Your task to perform on an android device: open app "Messenger Lite" Image 0: 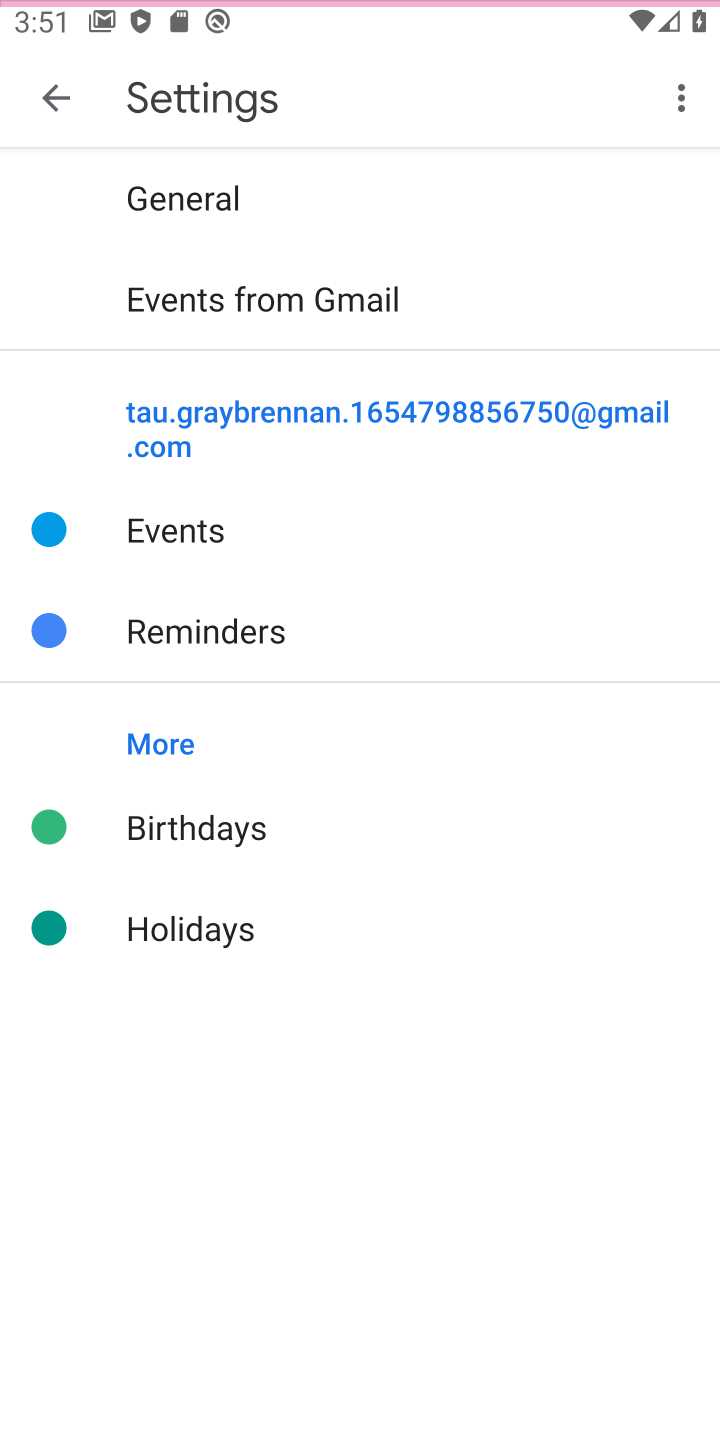
Step 0: press home button
Your task to perform on an android device: open app "Messenger Lite" Image 1: 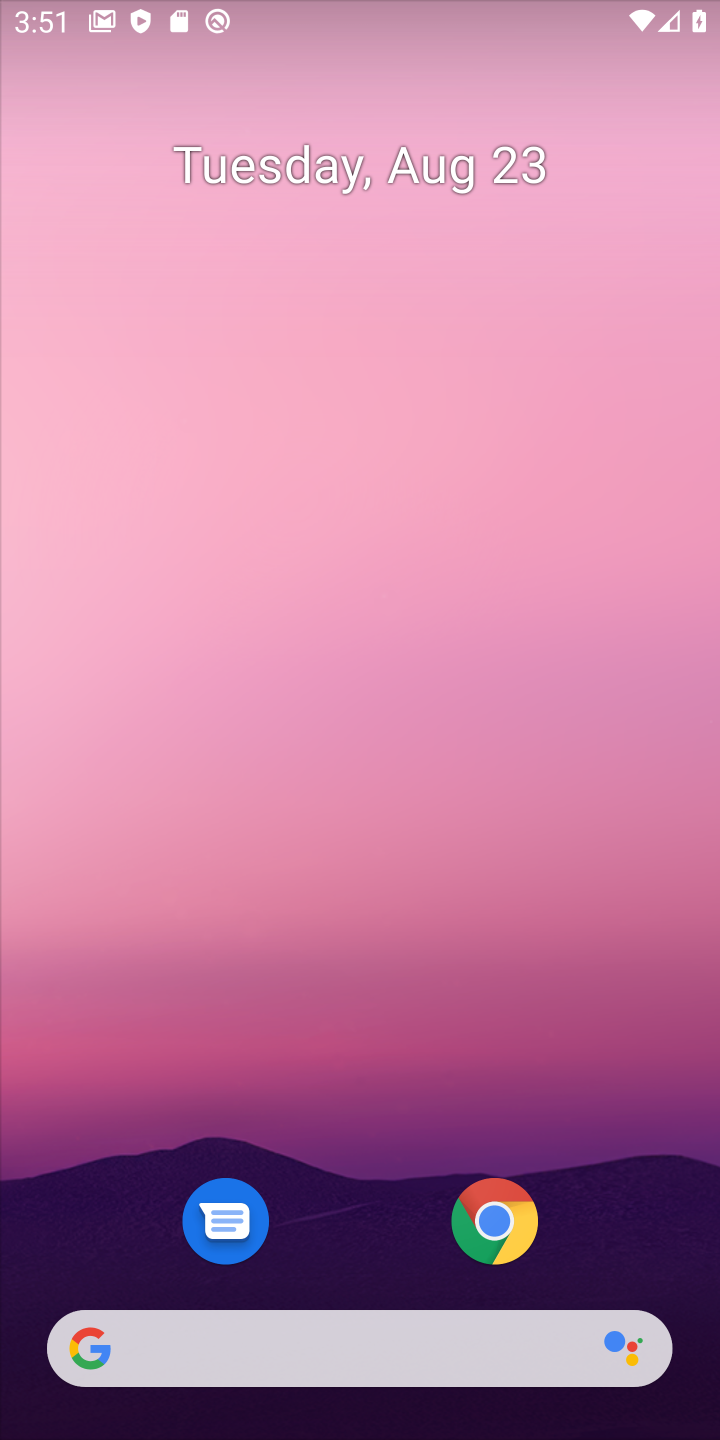
Step 1: press home button
Your task to perform on an android device: open app "Messenger Lite" Image 2: 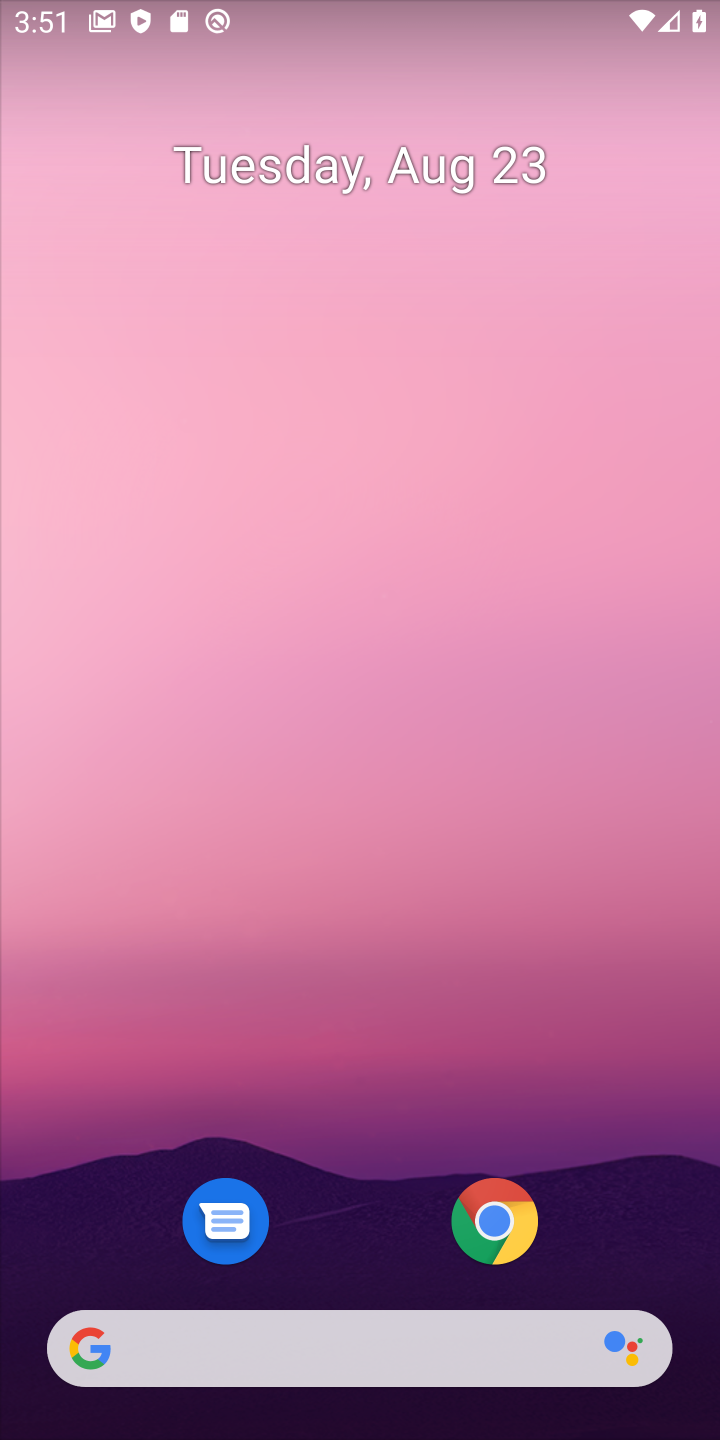
Step 2: drag from (334, 1289) to (343, 88)
Your task to perform on an android device: open app "Messenger Lite" Image 3: 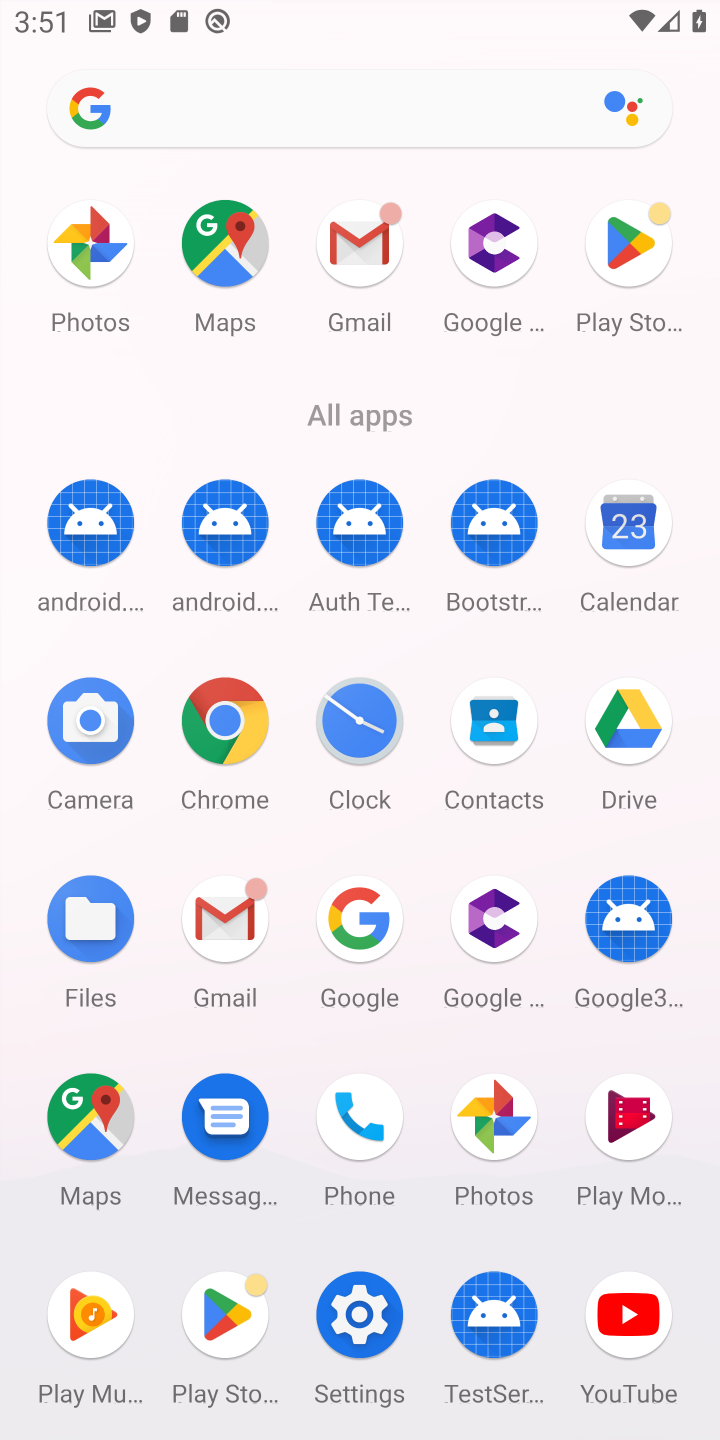
Step 3: click (620, 245)
Your task to perform on an android device: open app "Messenger Lite" Image 4: 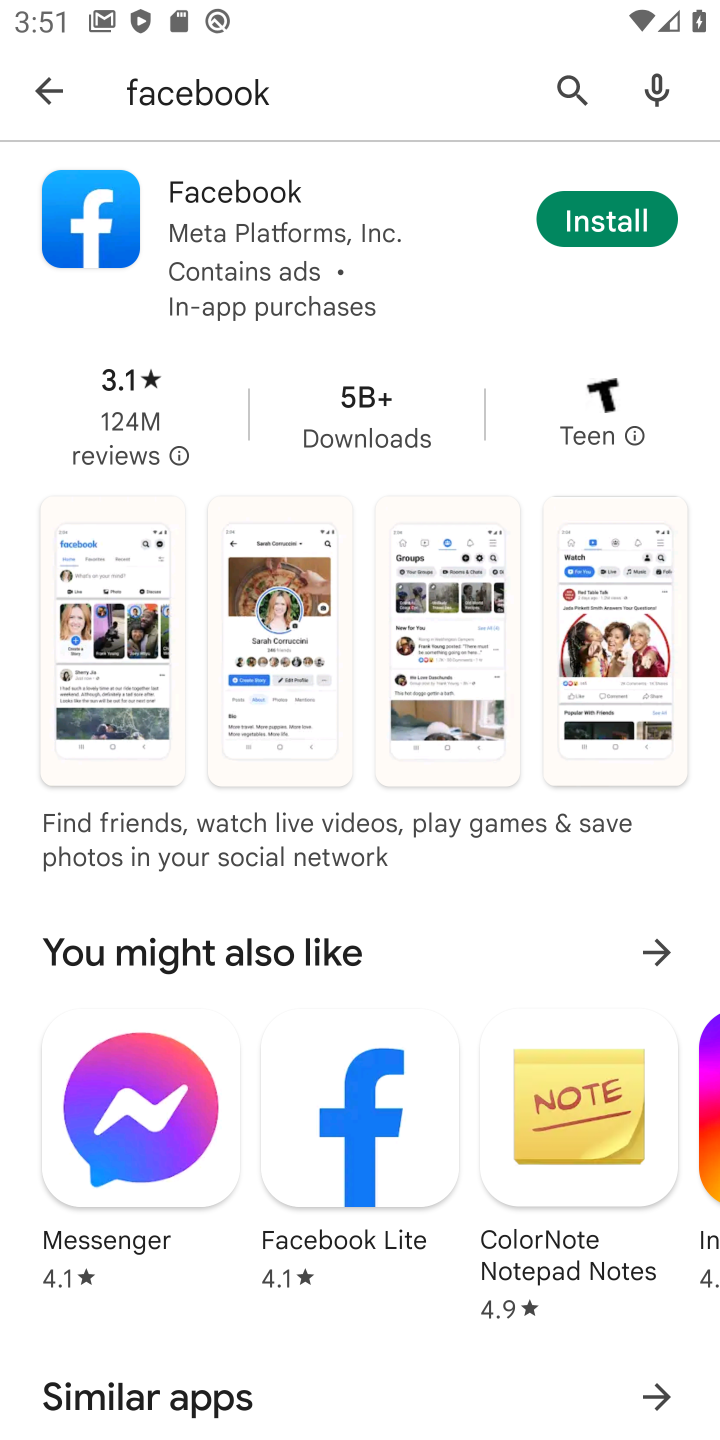
Step 4: click (42, 94)
Your task to perform on an android device: open app "Messenger Lite" Image 5: 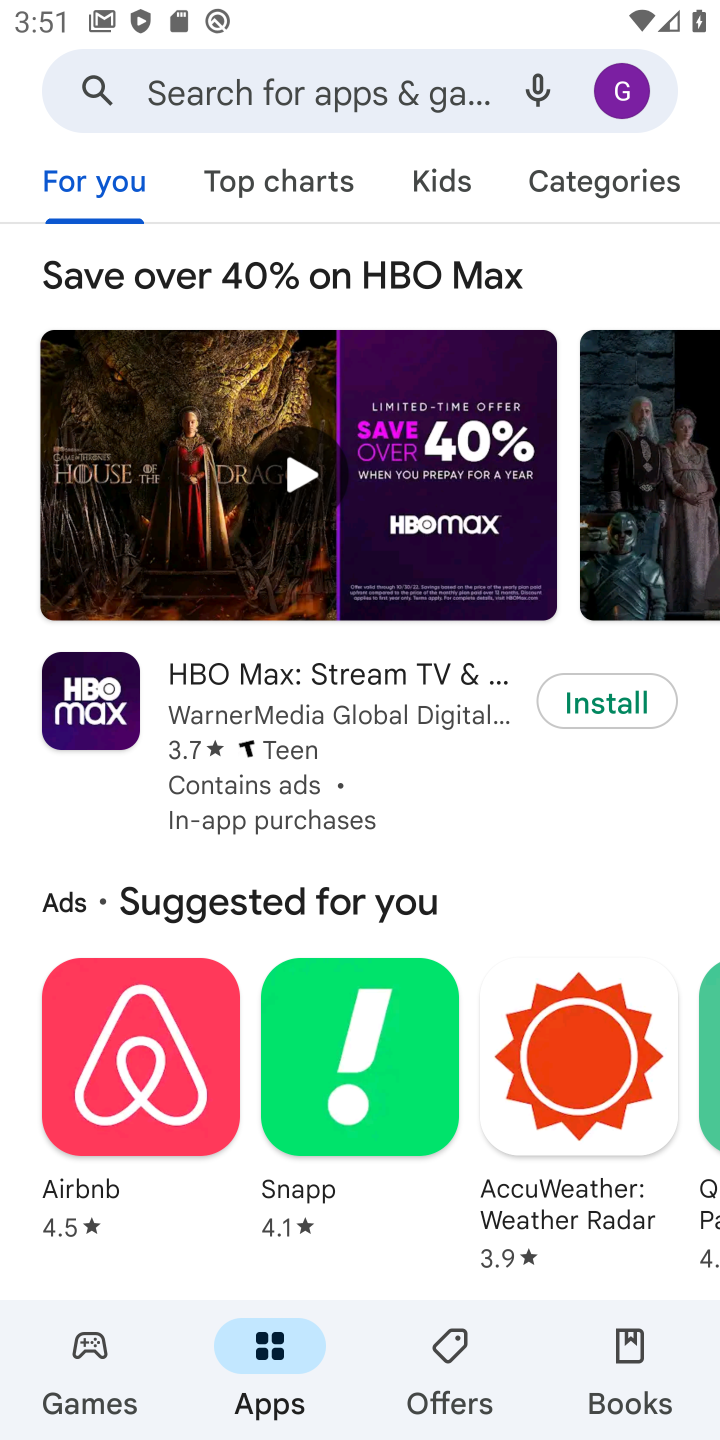
Step 5: click (344, 91)
Your task to perform on an android device: open app "Messenger Lite" Image 6: 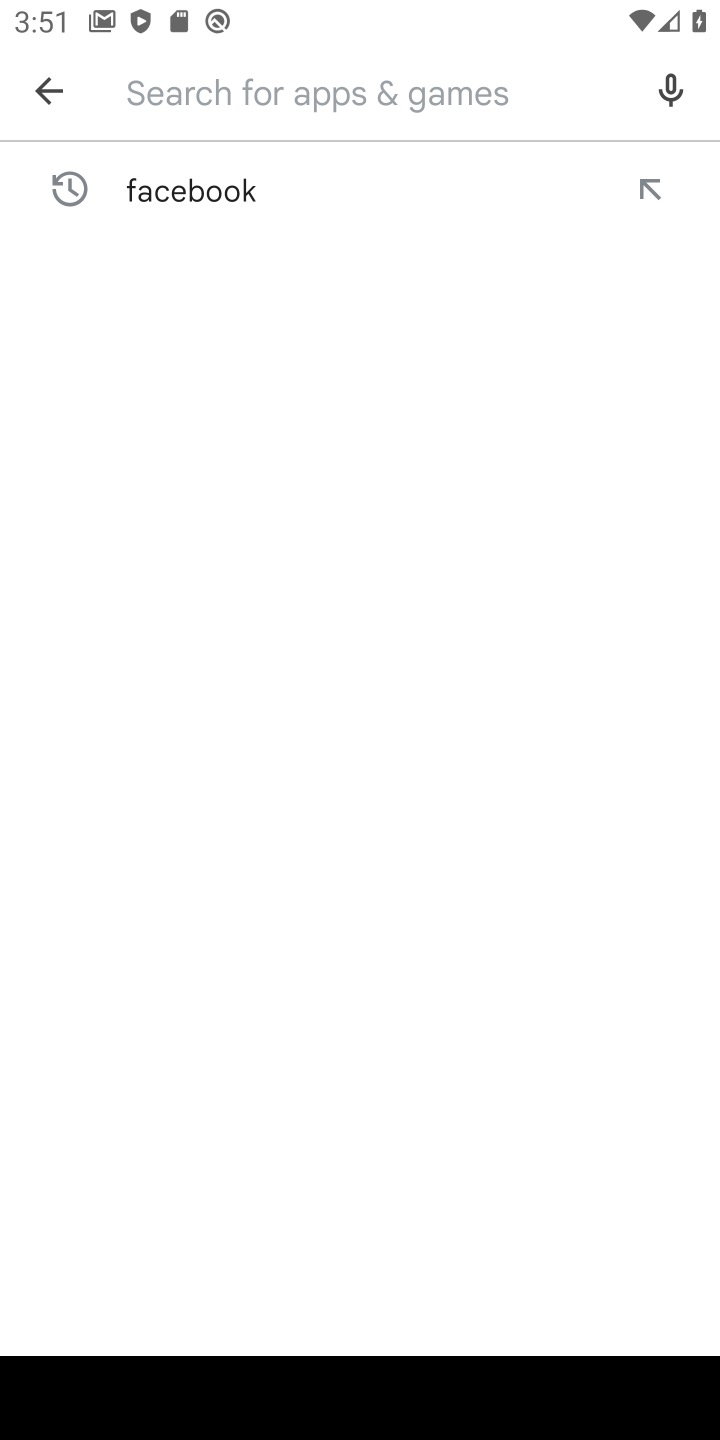
Step 6: type "Messenger Lite"
Your task to perform on an android device: open app "Messenger Lite" Image 7: 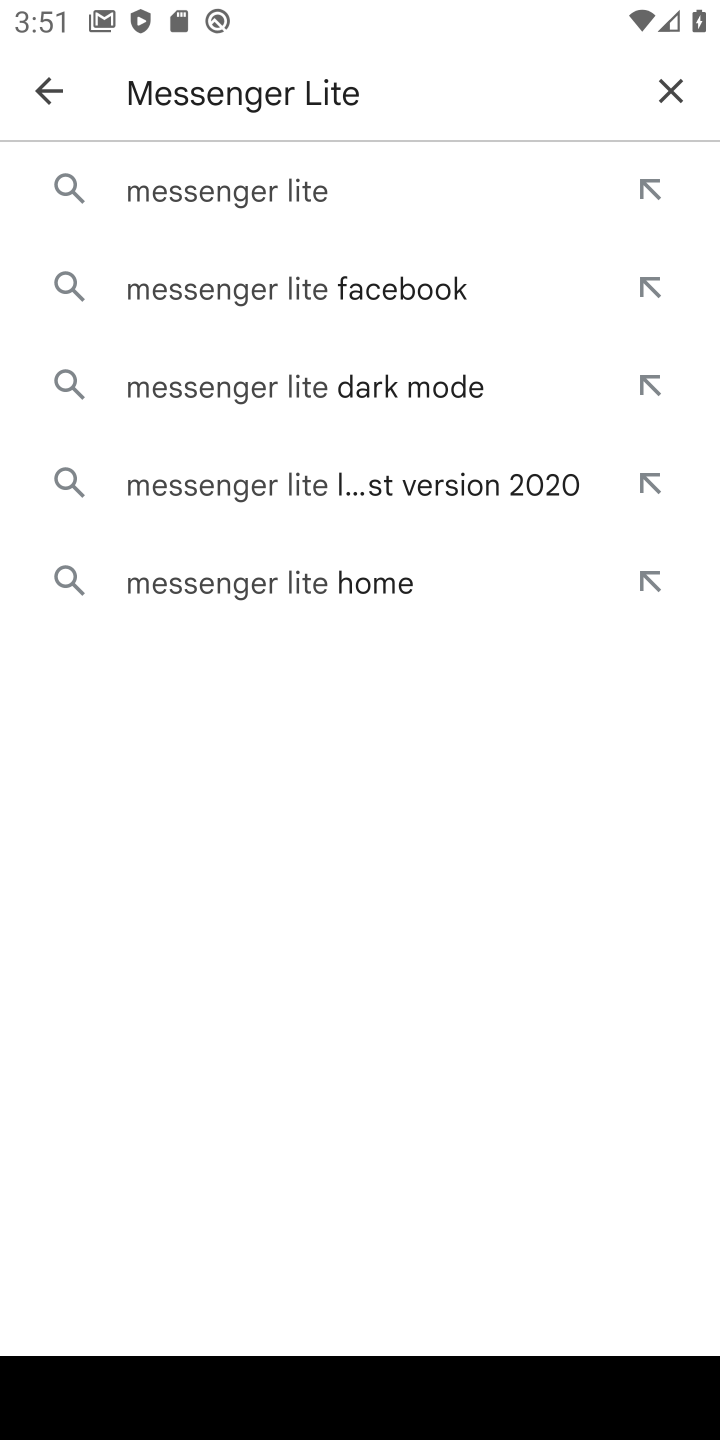
Step 7: click (226, 189)
Your task to perform on an android device: open app "Messenger Lite" Image 8: 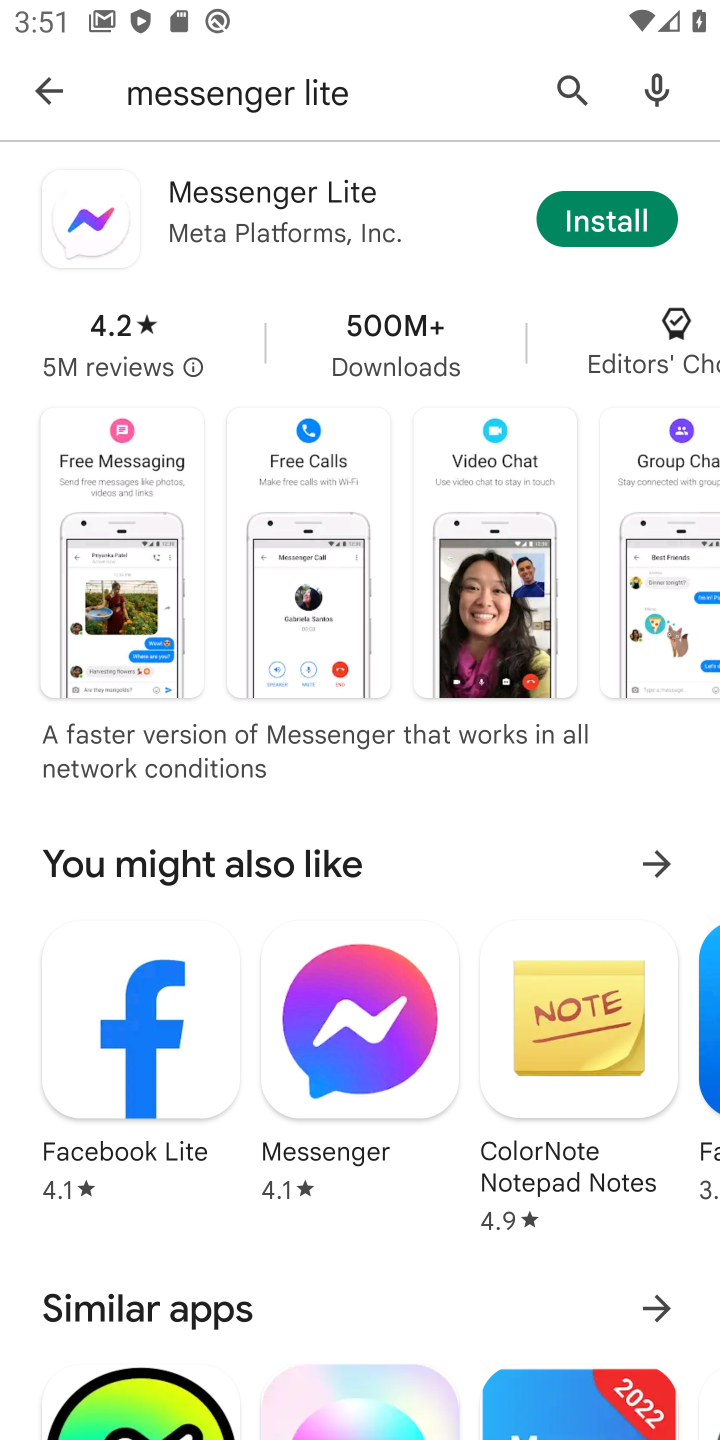
Step 8: click (623, 231)
Your task to perform on an android device: open app "Messenger Lite" Image 9: 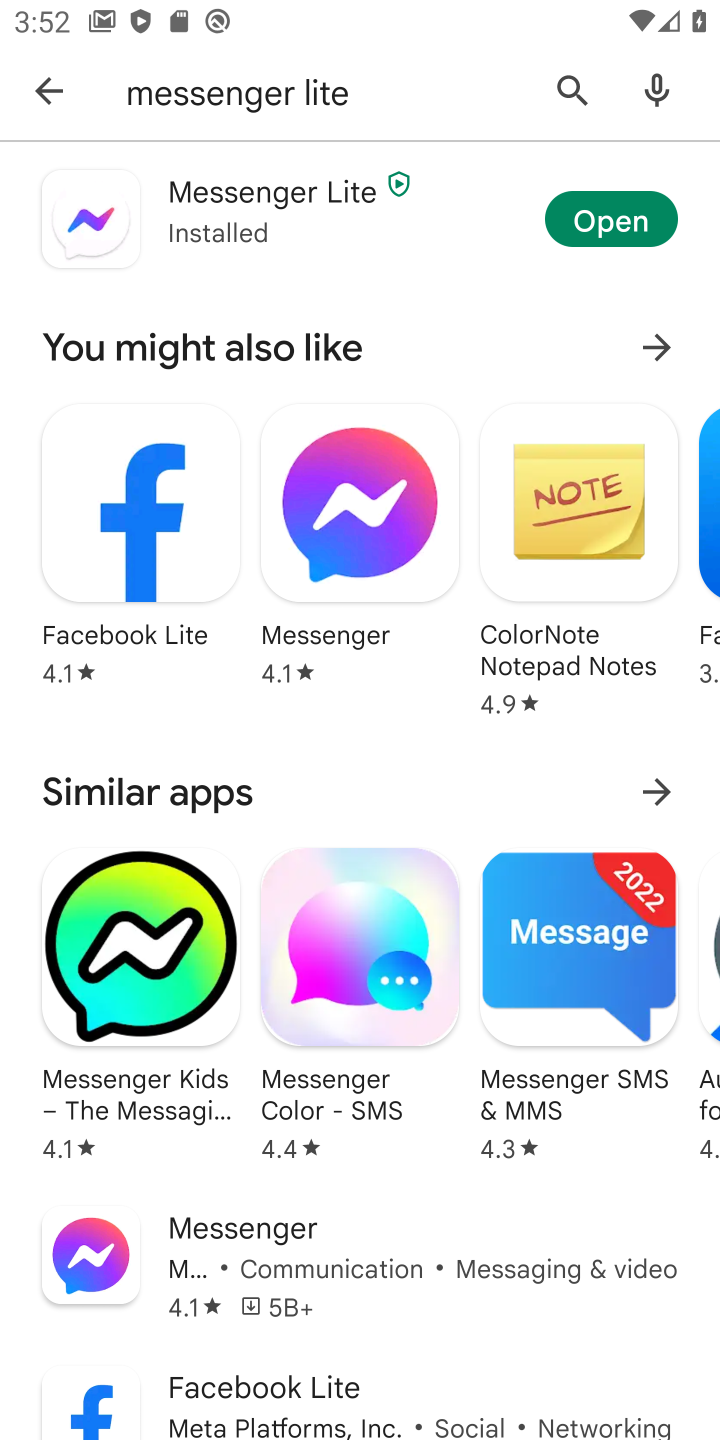
Step 9: click (629, 211)
Your task to perform on an android device: open app "Messenger Lite" Image 10: 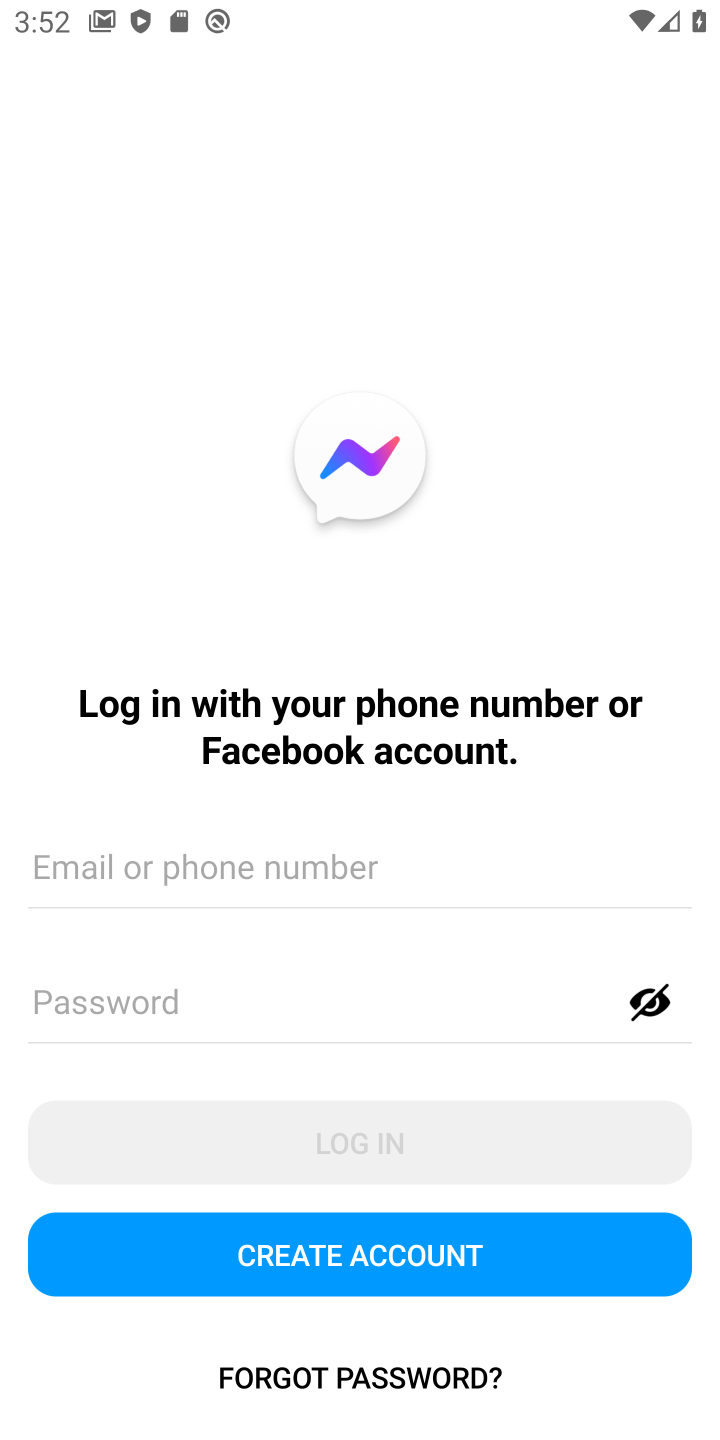
Step 10: task complete